Your task to perform on an android device: turn on wifi Image 0: 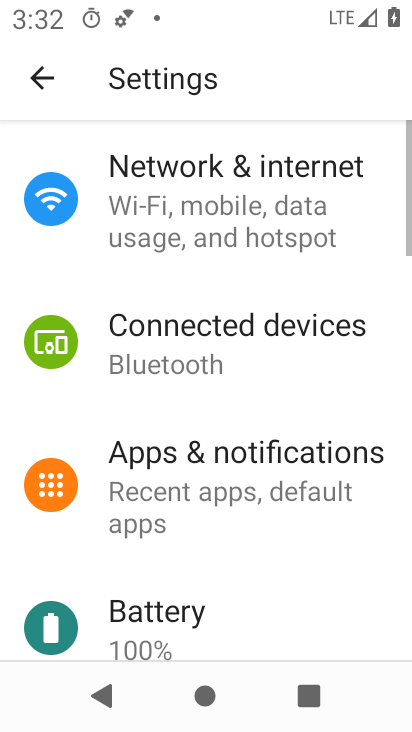
Step 0: press home button
Your task to perform on an android device: turn on wifi Image 1: 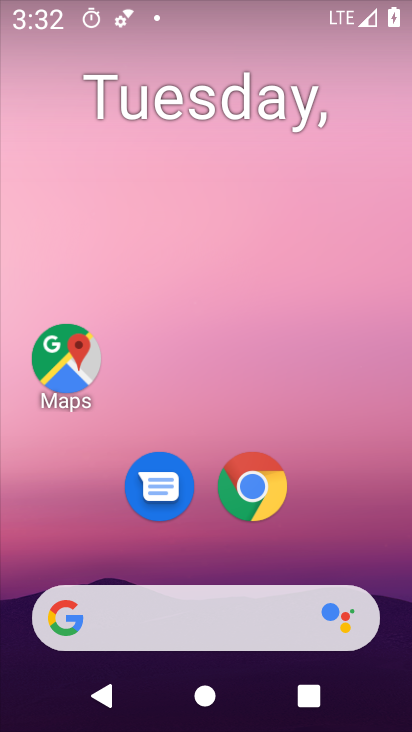
Step 1: drag from (368, 527) to (322, 58)
Your task to perform on an android device: turn on wifi Image 2: 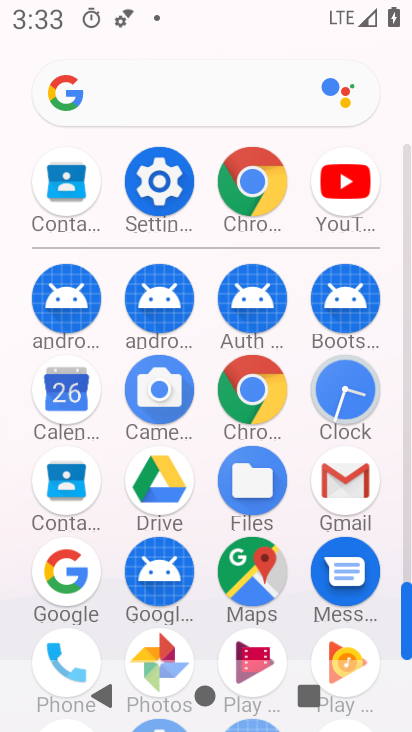
Step 2: click (163, 185)
Your task to perform on an android device: turn on wifi Image 3: 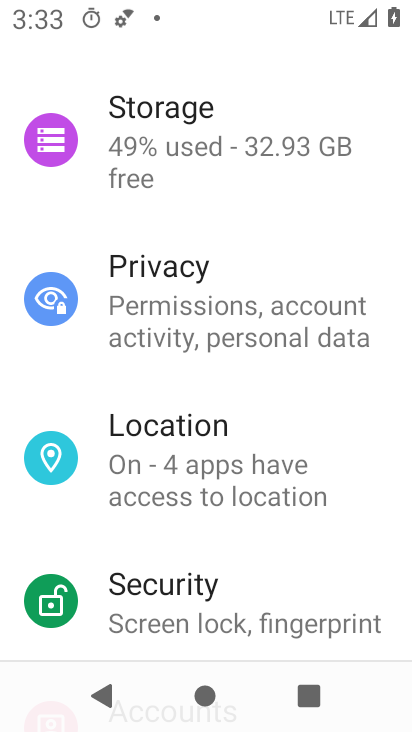
Step 3: drag from (337, 201) to (341, 293)
Your task to perform on an android device: turn on wifi Image 4: 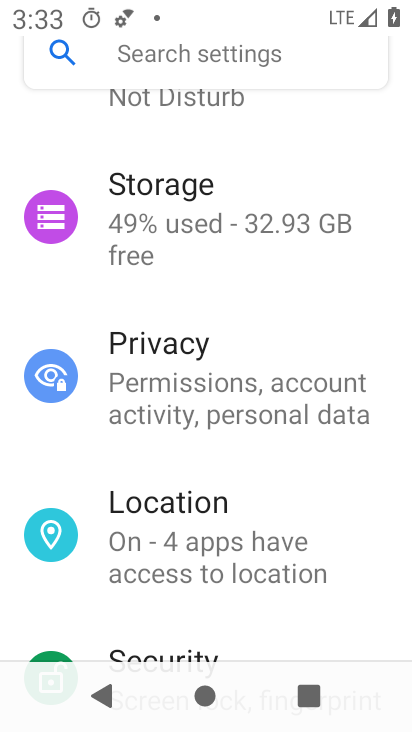
Step 4: drag from (357, 144) to (357, 242)
Your task to perform on an android device: turn on wifi Image 5: 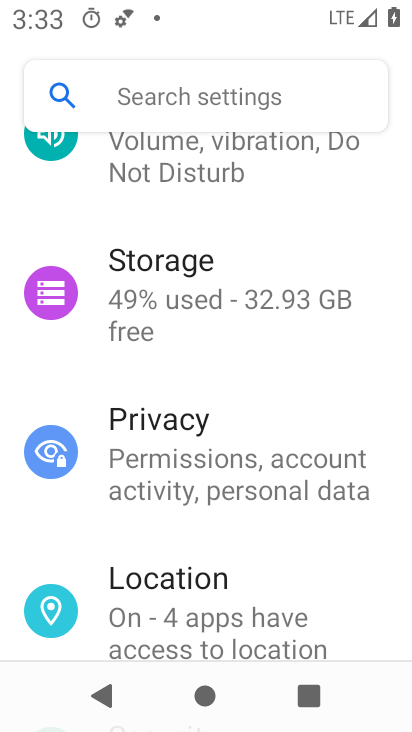
Step 5: drag from (364, 177) to (369, 290)
Your task to perform on an android device: turn on wifi Image 6: 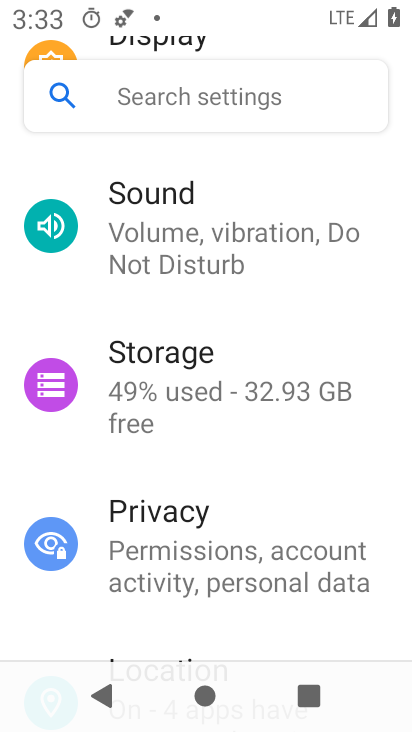
Step 6: drag from (376, 175) to (377, 293)
Your task to perform on an android device: turn on wifi Image 7: 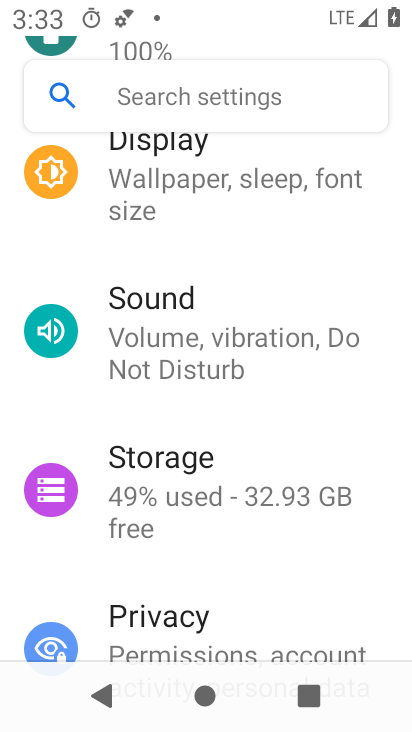
Step 7: drag from (366, 164) to (366, 318)
Your task to perform on an android device: turn on wifi Image 8: 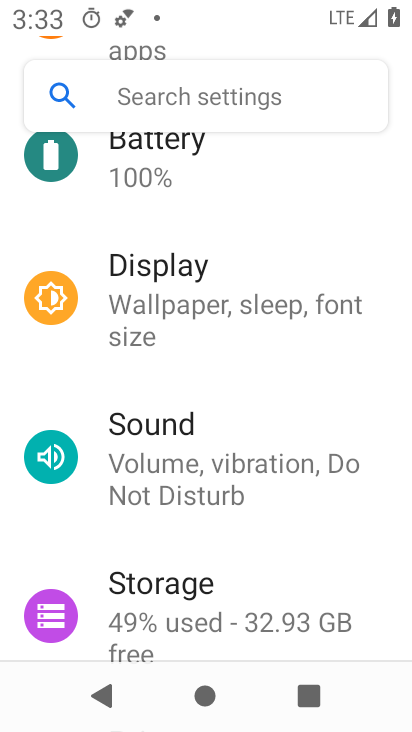
Step 8: drag from (367, 175) to (363, 326)
Your task to perform on an android device: turn on wifi Image 9: 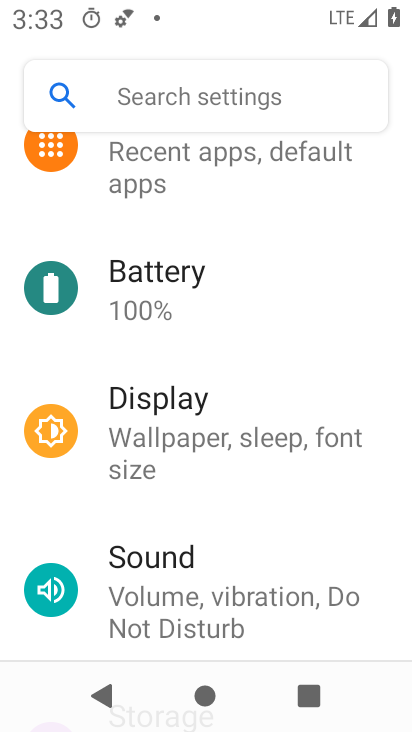
Step 9: drag from (363, 195) to (364, 336)
Your task to perform on an android device: turn on wifi Image 10: 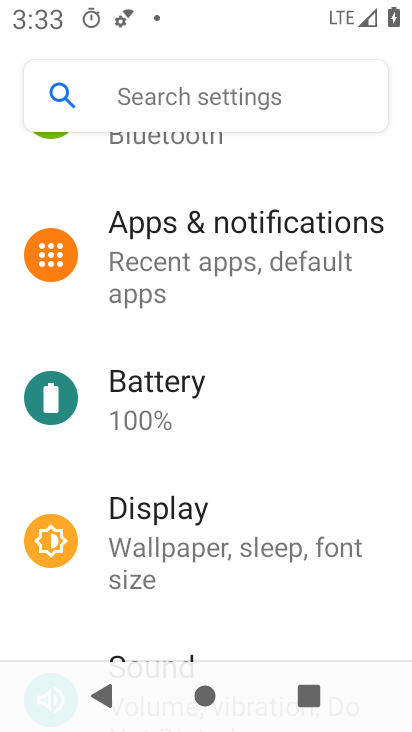
Step 10: drag from (366, 165) to (366, 377)
Your task to perform on an android device: turn on wifi Image 11: 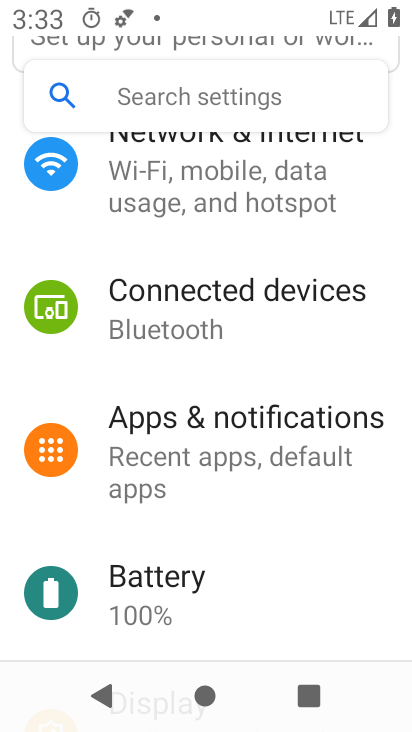
Step 11: drag from (367, 174) to (363, 352)
Your task to perform on an android device: turn on wifi Image 12: 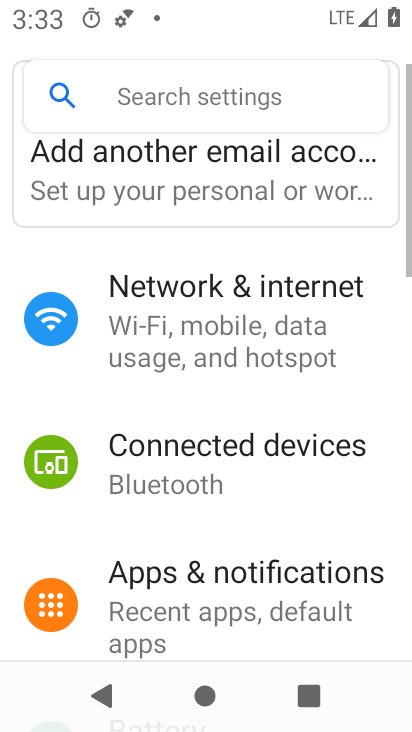
Step 12: click (326, 325)
Your task to perform on an android device: turn on wifi Image 13: 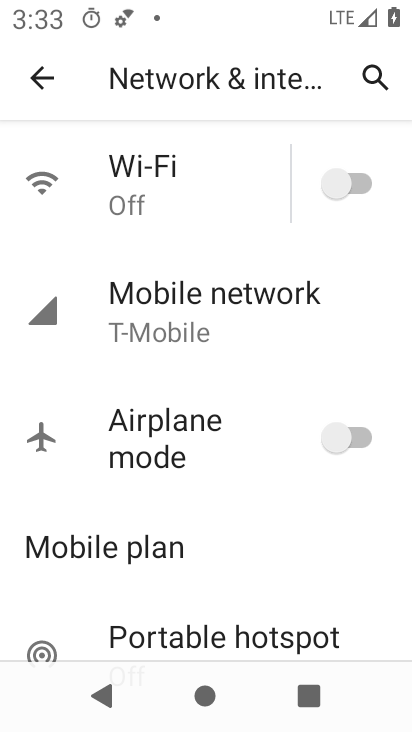
Step 13: press home button
Your task to perform on an android device: turn on wifi Image 14: 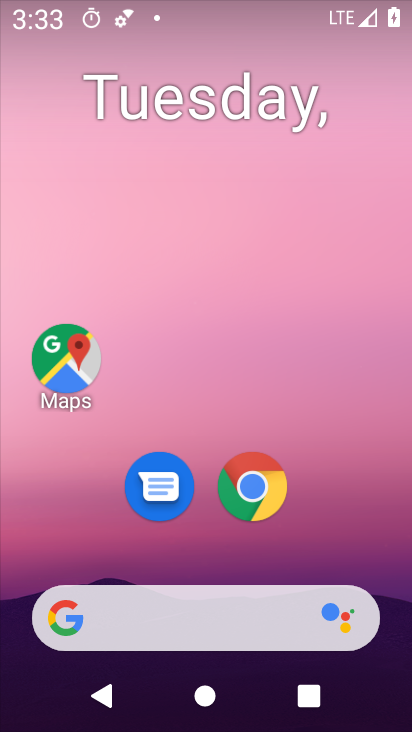
Step 14: drag from (353, 522) to (298, 58)
Your task to perform on an android device: turn on wifi Image 15: 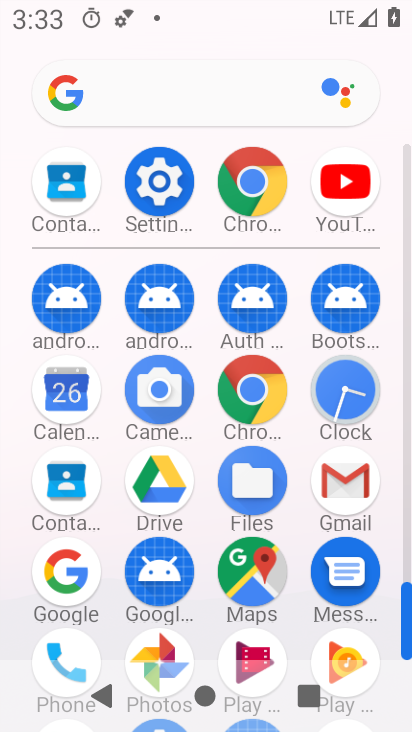
Step 15: click (152, 163)
Your task to perform on an android device: turn on wifi Image 16: 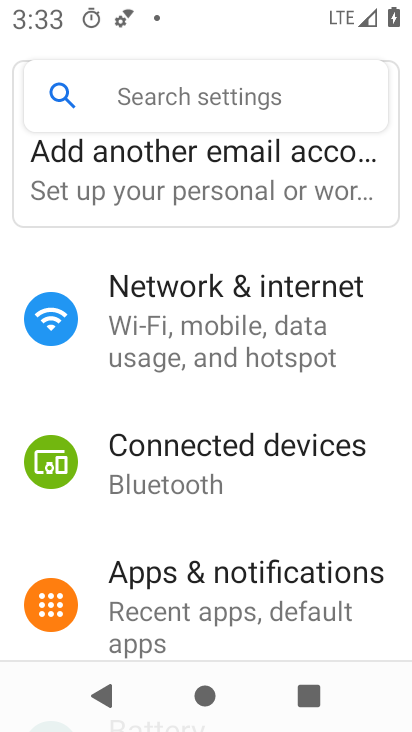
Step 16: click (248, 316)
Your task to perform on an android device: turn on wifi Image 17: 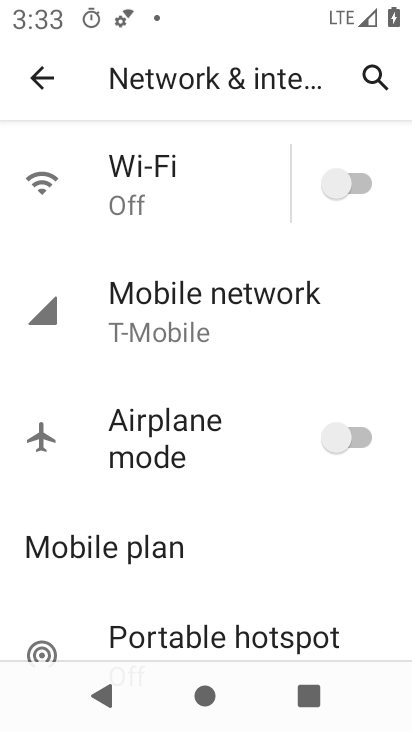
Step 17: click (348, 182)
Your task to perform on an android device: turn on wifi Image 18: 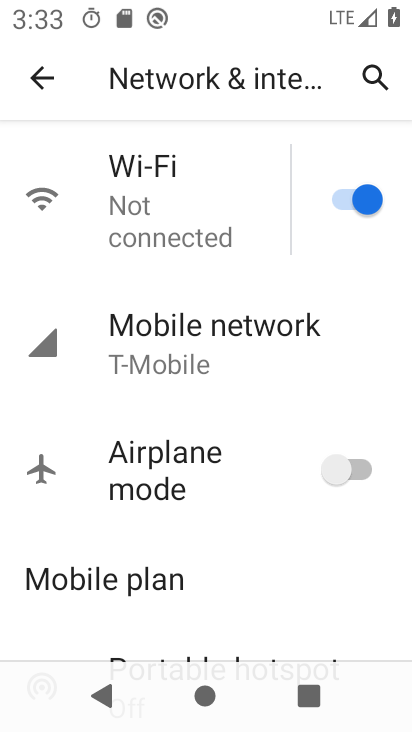
Step 18: task complete